Your task to perform on an android device: find photos in the google photos app Image 0: 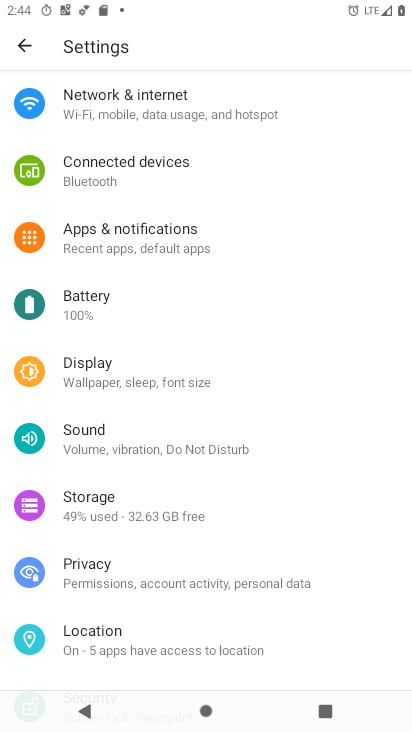
Step 0: press home button
Your task to perform on an android device: find photos in the google photos app Image 1: 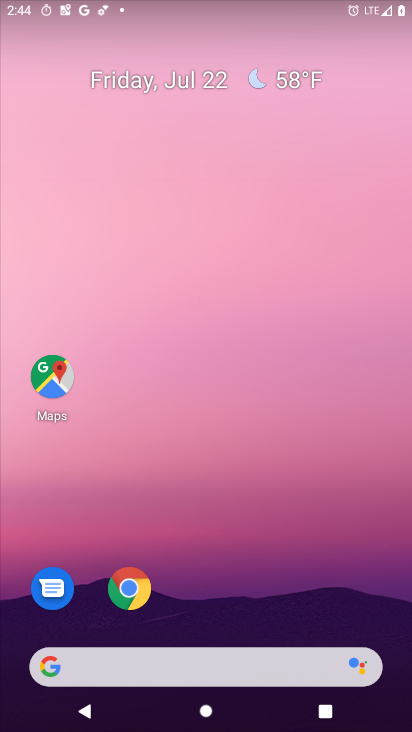
Step 1: drag from (269, 600) to (231, 104)
Your task to perform on an android device: find photos in the google photos app Image 2: 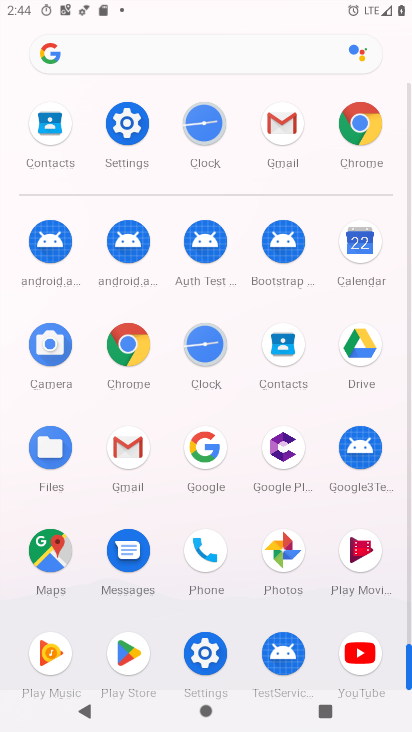
Step 2: click (278, 557)
Your task to perform on an android device: find photos in the google photos app Image 3: 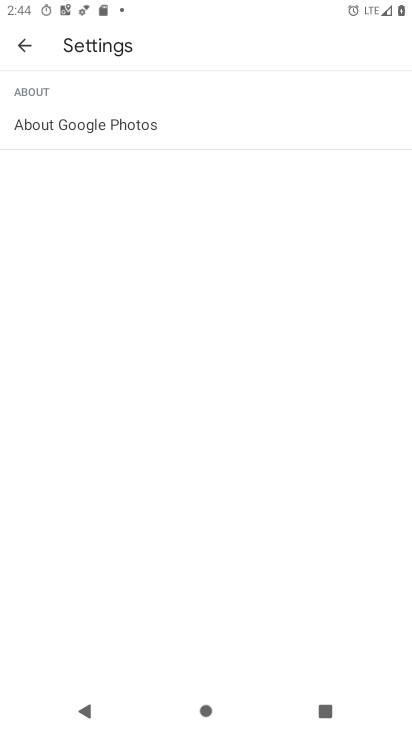
Step 3: click (22, 40)
Your task to perform on an android device: find photos in the google photos app Image 4: 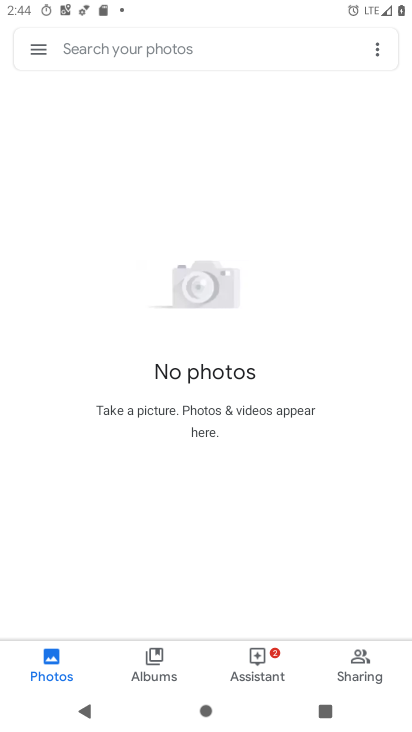
Step 4: task complete